Your task to perform on an android device: Open battery settings Image 0: 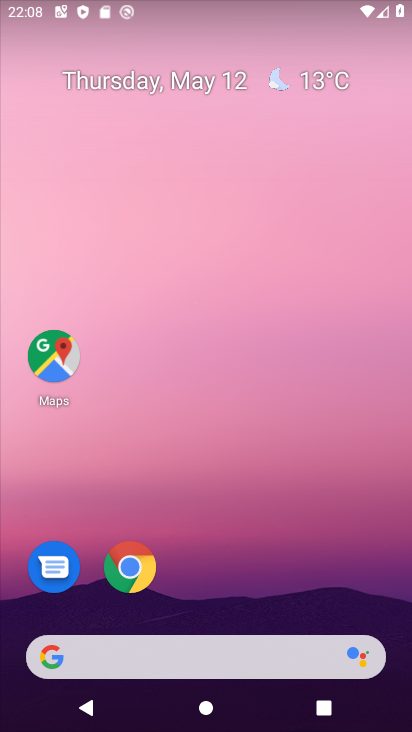
Step 0: drag from (211, 614) to (201, 83)
Your task to perform on an android device: Open battery settings Image 1: 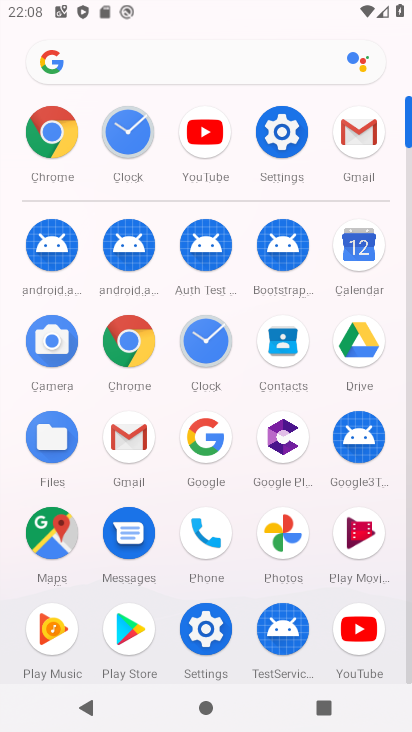
Step 1: click (279, 127)
Your task to perform on an android device: Open battery settings Image 2: 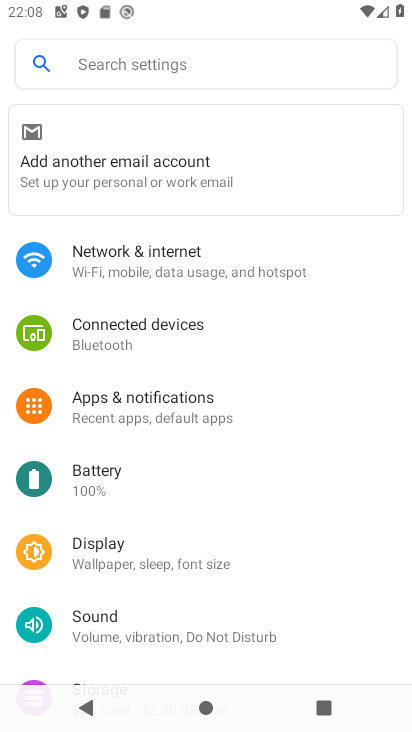
Step 2: click (146, 483)
Your task to perform on an android device: Open battery settings Image 3: 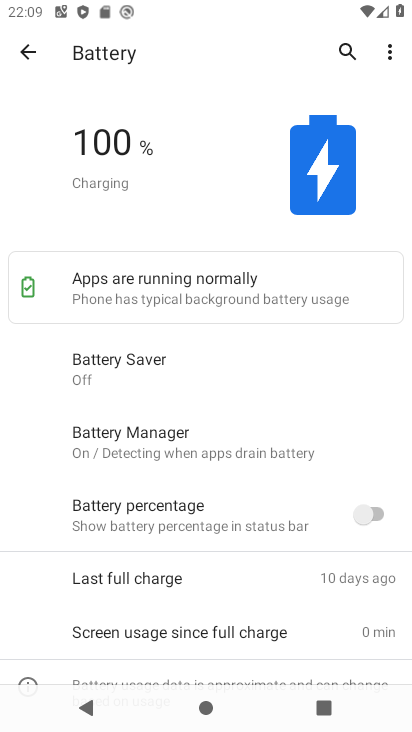
Step 3: task complete